Your task to perform on an android device: clear history in the chrome app Image 0: 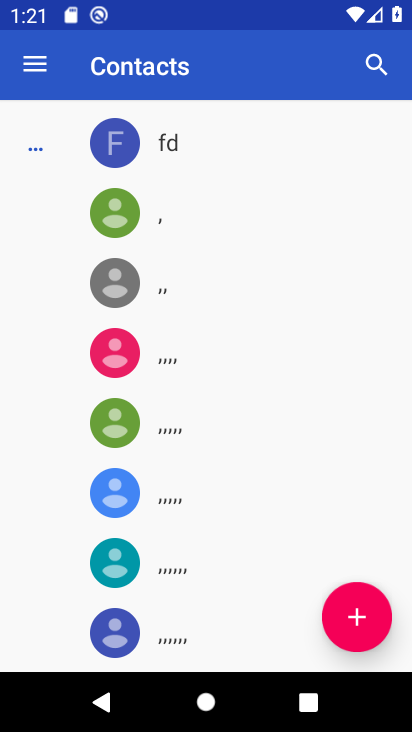
Step 0: press home button
Your task to perform on an android device: clear history in the chrome app Image 1: 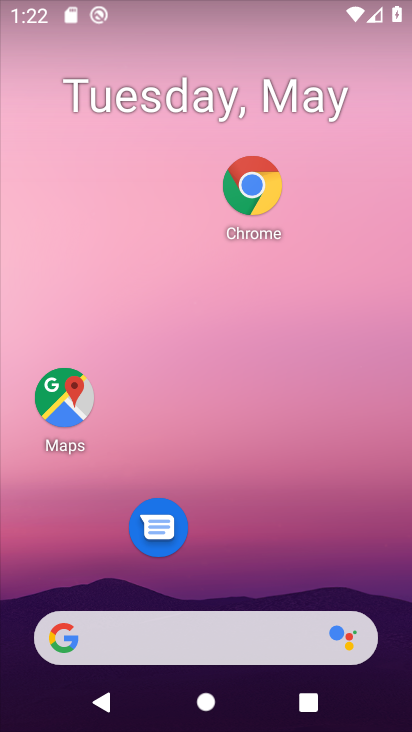
Step 1: click (262, 177)
Your task to perform on an android device: clear history in the chrome app Image 2: 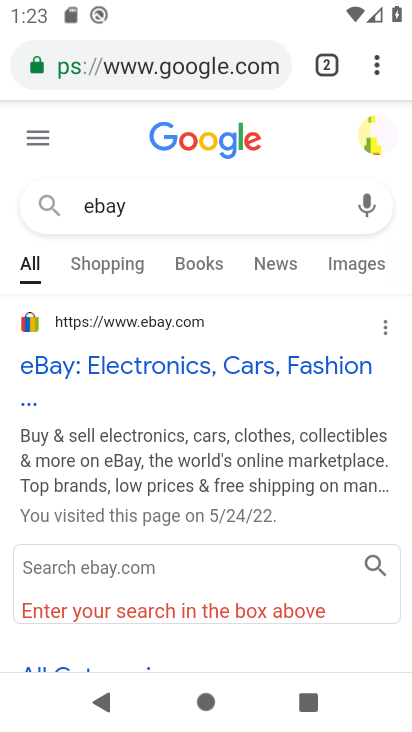
Step 2: click (373, 53)
Your task to perform on an android device: clear history in the chrome app Image 3: 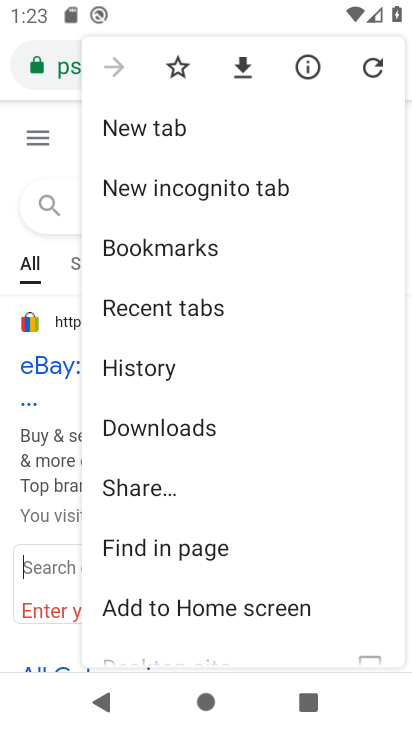
Step 3: click (144, 382)
Your task to perform on an android device: clear history in the chrome app Image 4: 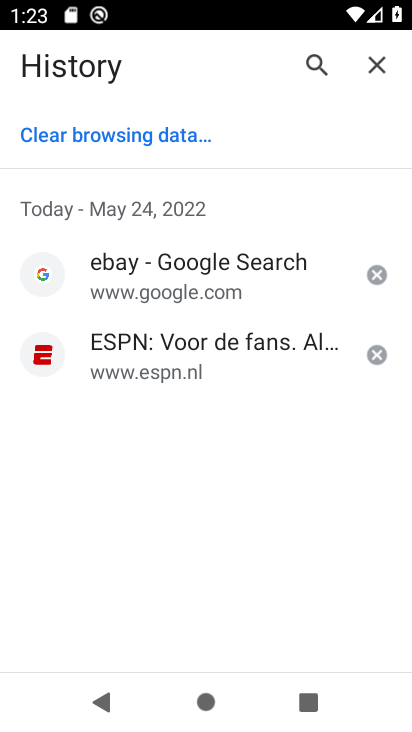
Step 4: click (155, 132)
Your task to perform on an android device: clear history in the chrome app Image 5: 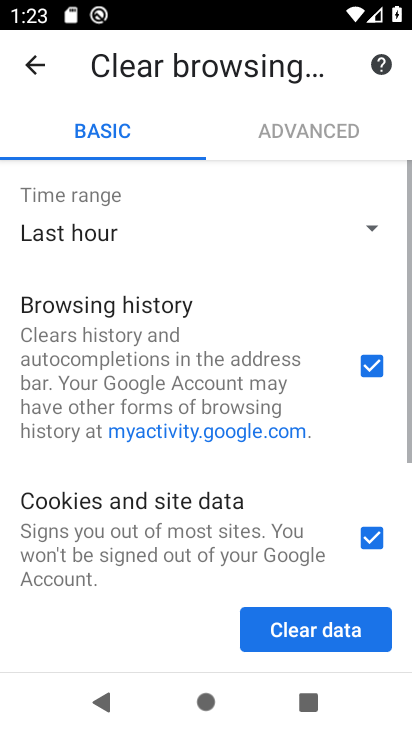
Step 5: click (307, 624)
Your task to perform on an android device: clear history in the chrome app Image 6: 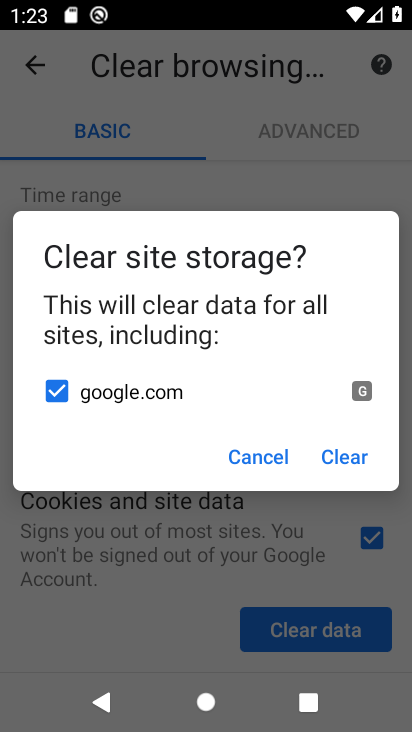
Step 6: click (342, 451)
Your task to perform on an android device: clear history in the chrome app Image 7: 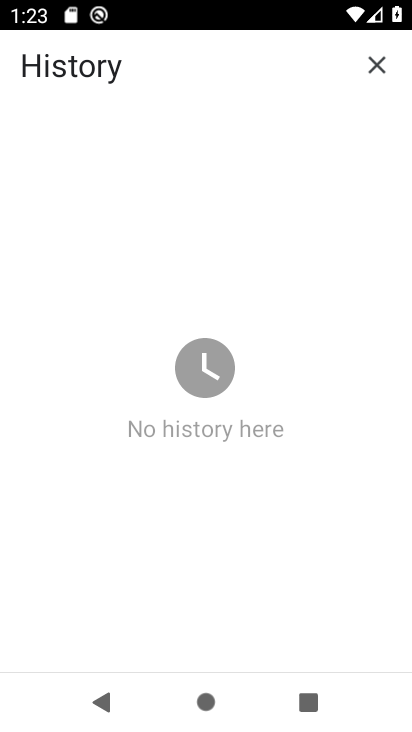
Step 7: task complete